Your task to perform on an android device: set the stopwatch Image 0: 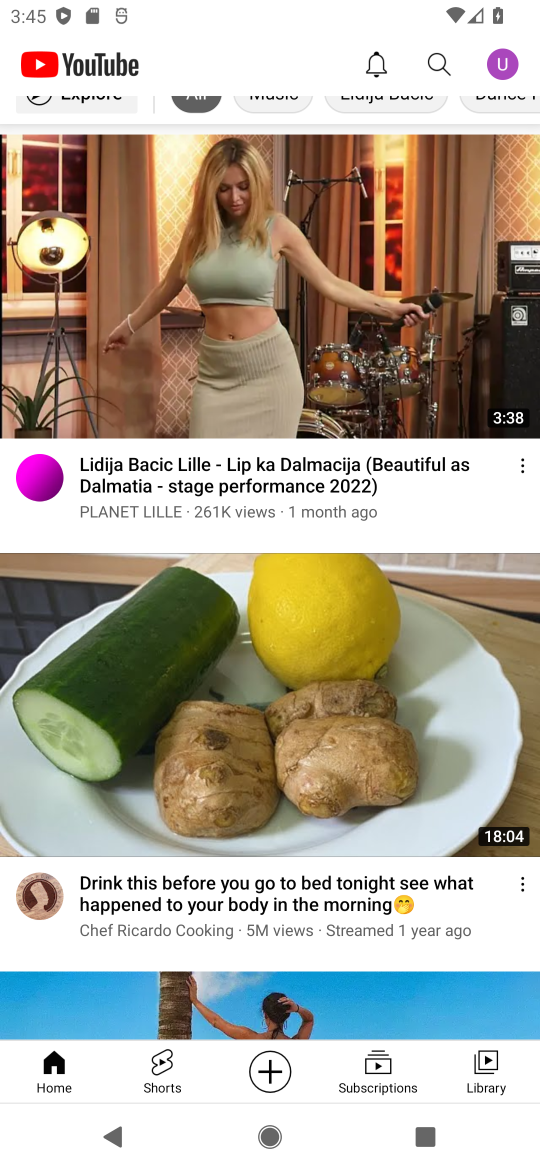
Step 0: press home button
Your task to perform on an android device: set the stopwatch Image 1: 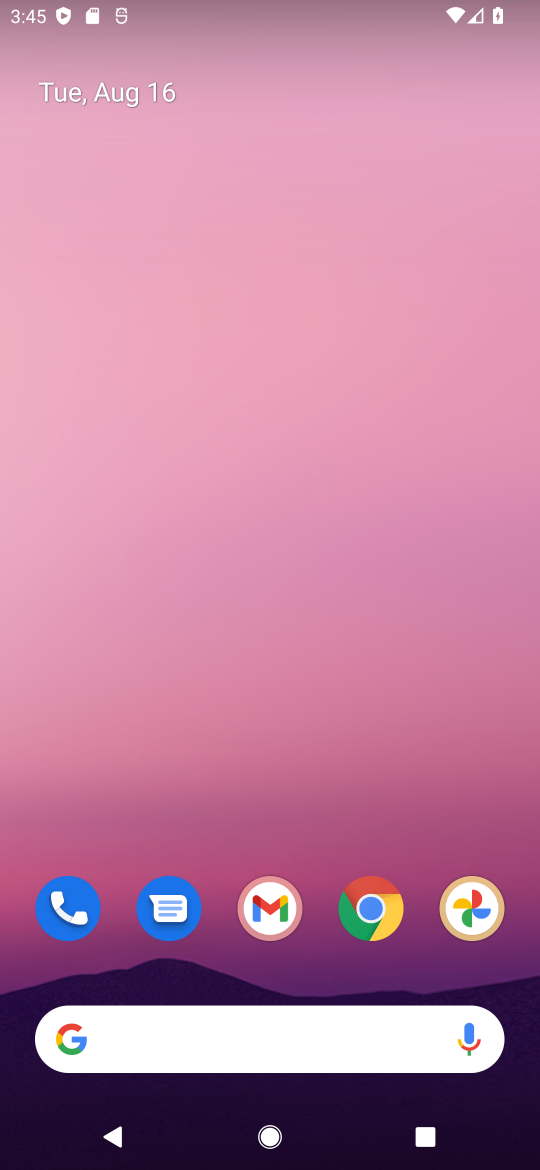
Step 1: drag from (315, 970) to (333, 181)
Your task to perform on an android device: set the stopwatch Image 2: 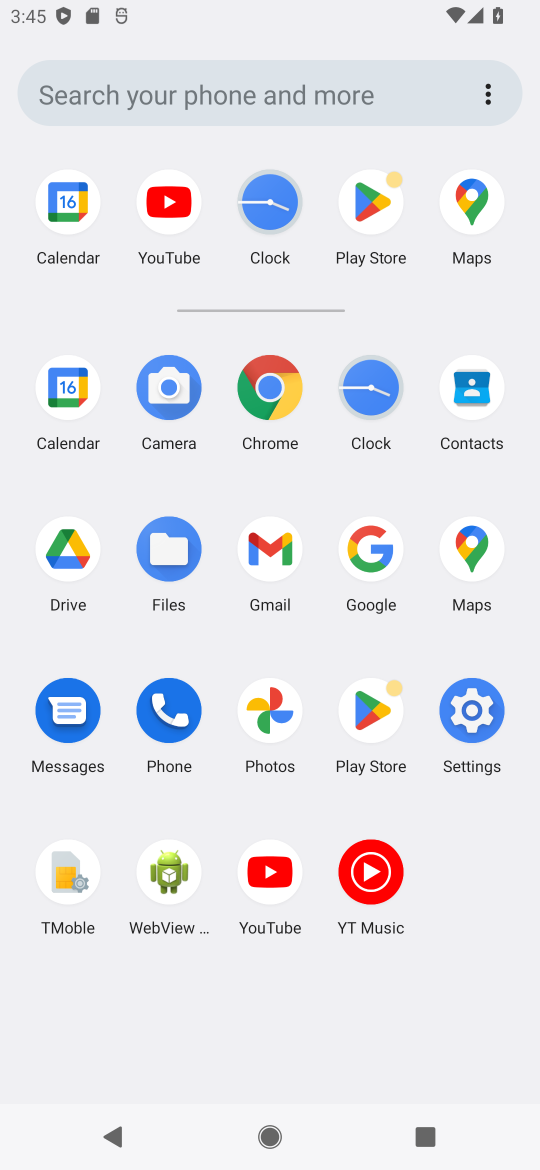
Step 2: click (371, 381)
Your task to perform on an android device: set the stopwatch Image 3: 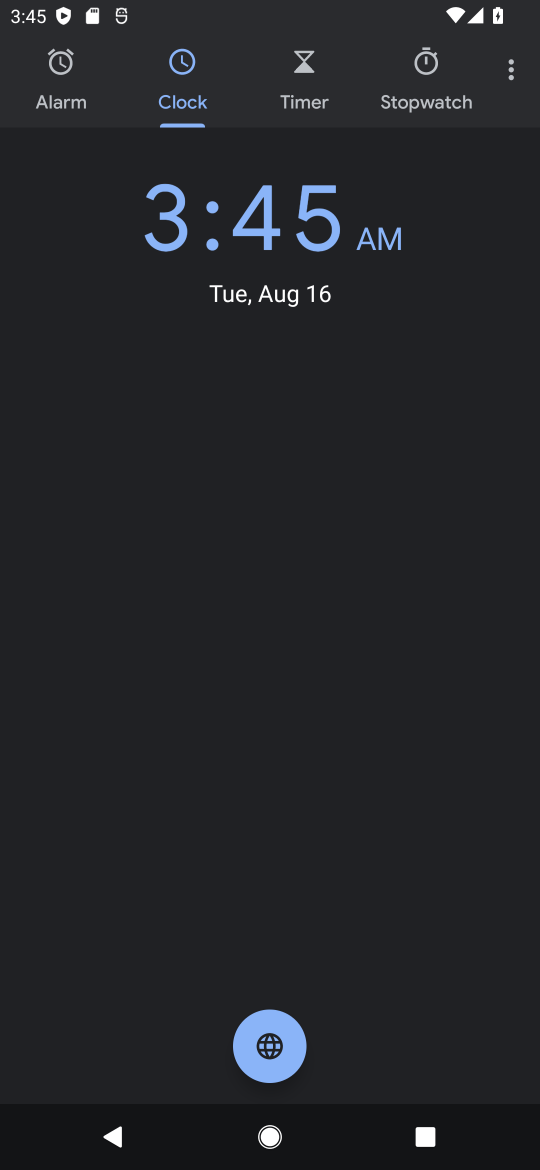
Step 3: click (425, 69)
Your task to perform on an android device: set the stopwatch Image 4: 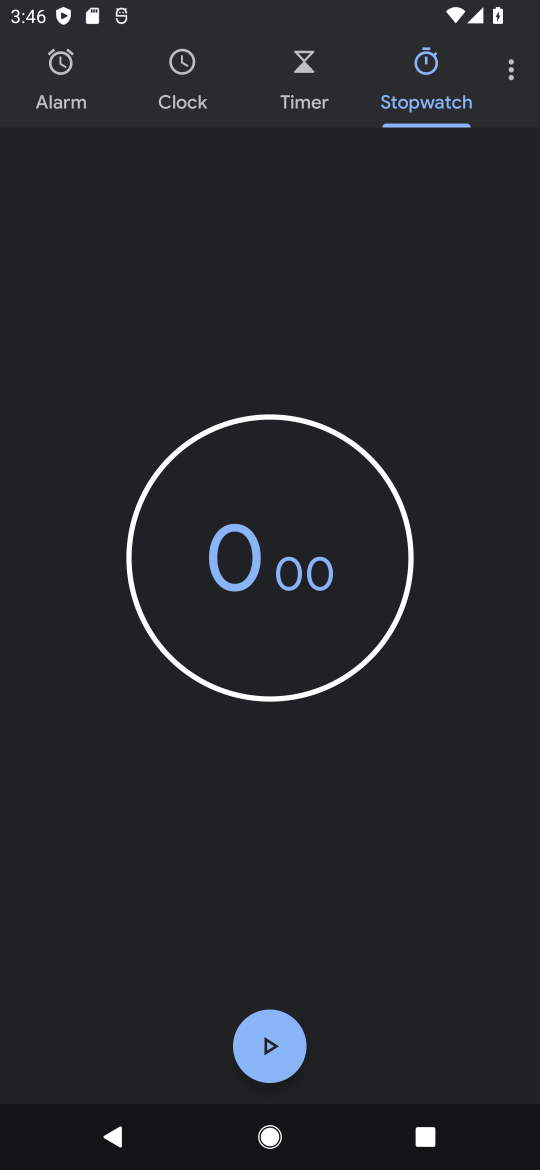
Step 4: click (259, 1047)
Your task to perform on an android device: set the stopwatch Image 5: 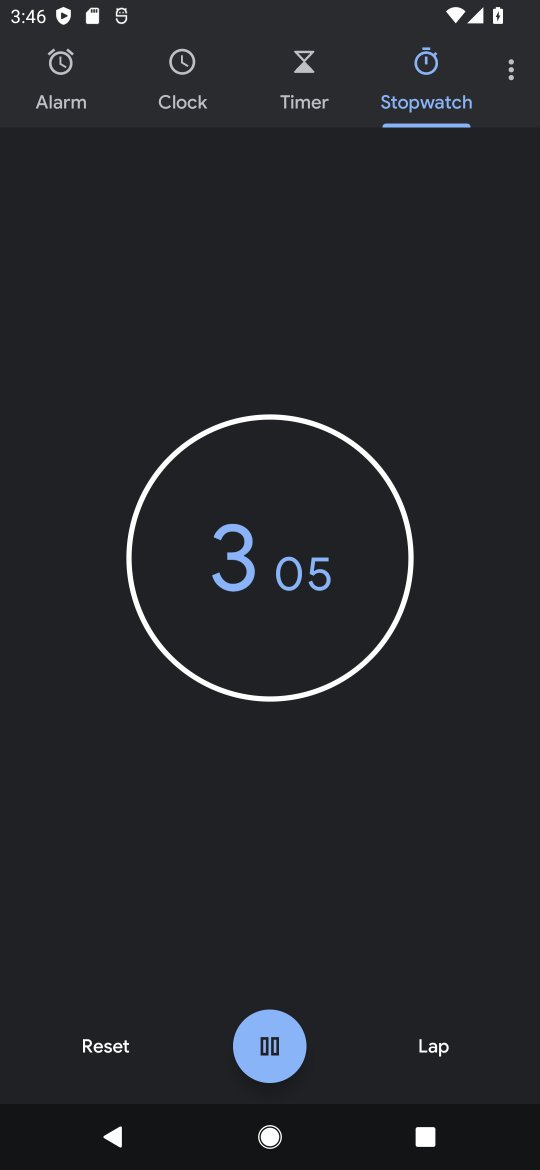
Step 5: task complete